Your task to perform on an android device: Go to Android settings Image 0: 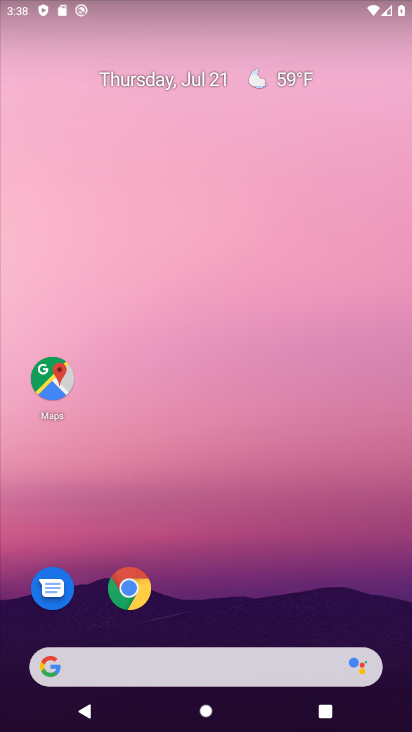
Step 0: drag from (212, 398) to (240, 0)
Your task to perform on an android device: Go to Android settings Image 1: 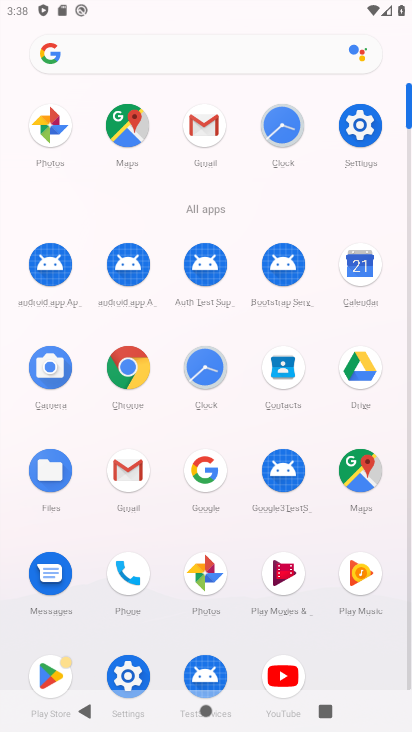
Step 1: click (133, 664)
Your task to perform on an android device: Go to Android settings Image 2: 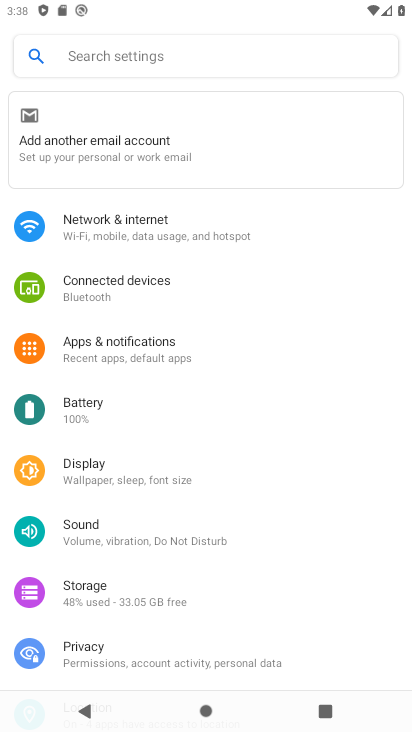
Step 2: drag from (94, 588) to (152, 268)
Your task to perform on an android device: Go to Android settings Image 3: 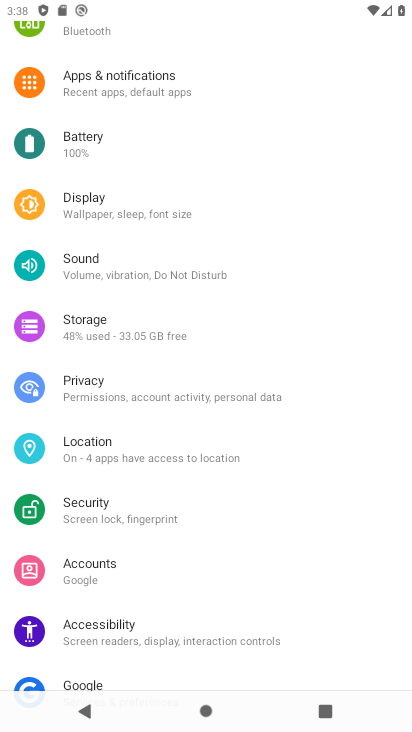
Step 3: drag from (150, 612) to (185, 242)
Your task to perform on an android device: Go to Android settings Image 4: 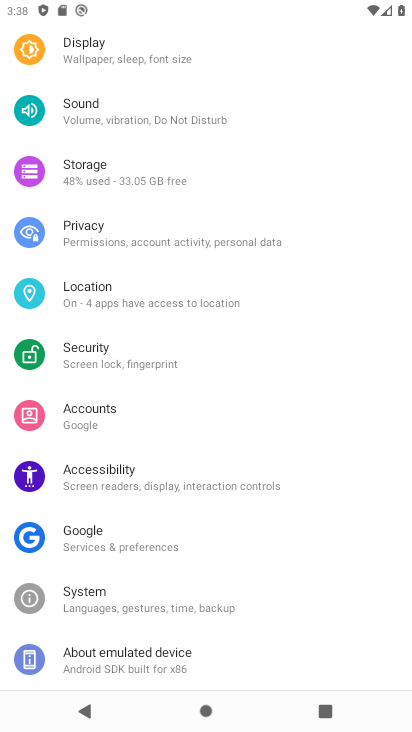
Step 4: click (139, 658)
Your task to perform on an android device: Go to Android settings Image 5: 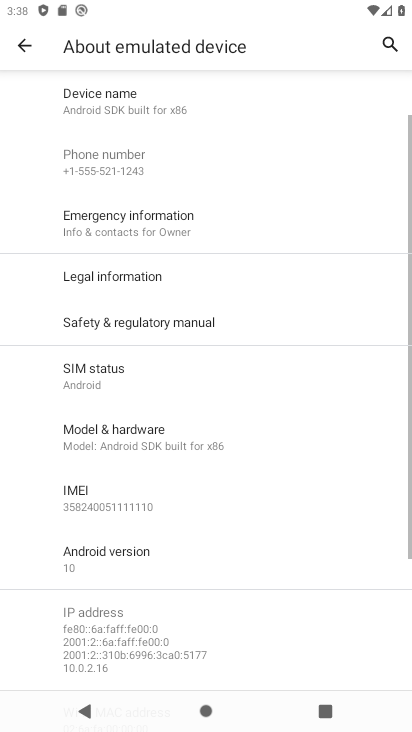
Step 5: click (111, 560)
Your task to perform on an android device: Go to Android settings Image 6: 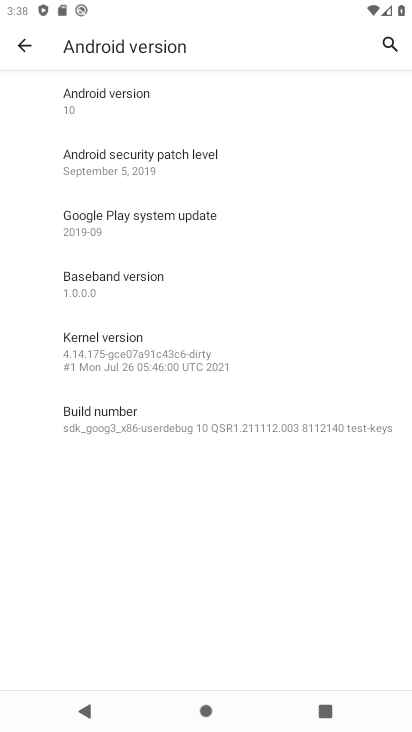
Step 6: task complete